Your task to perform on an android device: Open Chrome and go to the settings page Image 0: 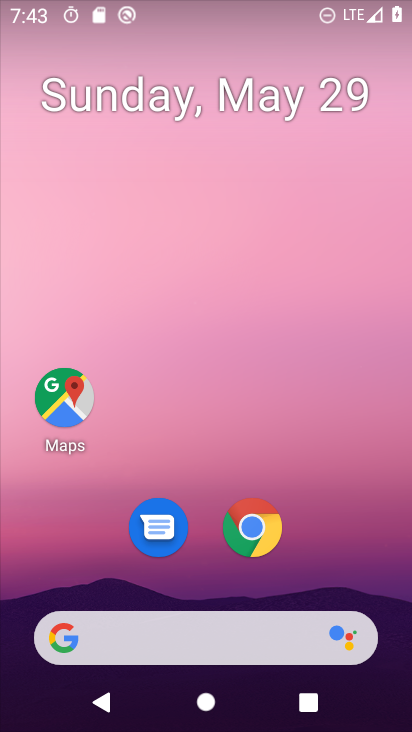
Step 0: drag from (377, 639) to (344, 6)
Your task to perform on an android device: Open Chrome and go to the settings page Image 1: 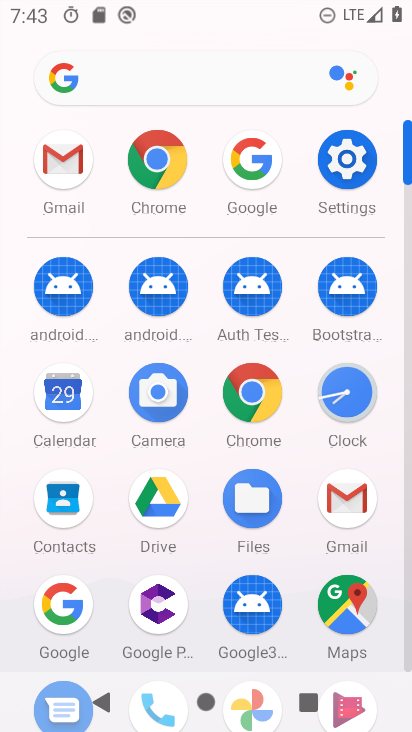
Step 1: click (147, 174)
Your task to perform on an android device: Open Chrome and go to the settings page Image 2: 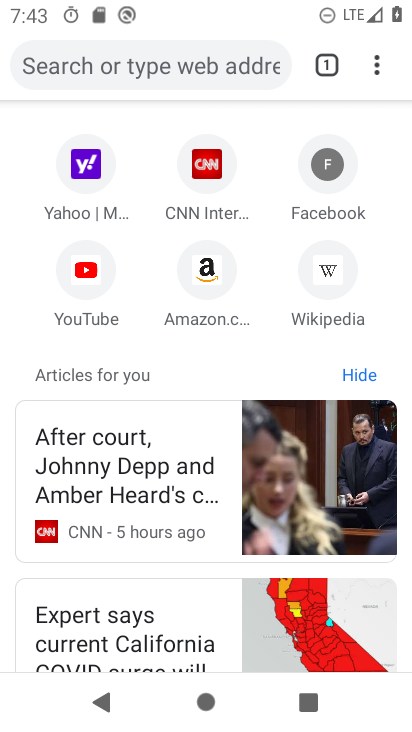
Step 2: click (374, 57)
Your task to perform on an android device: Open Chrome and go to the settings page Image 3: 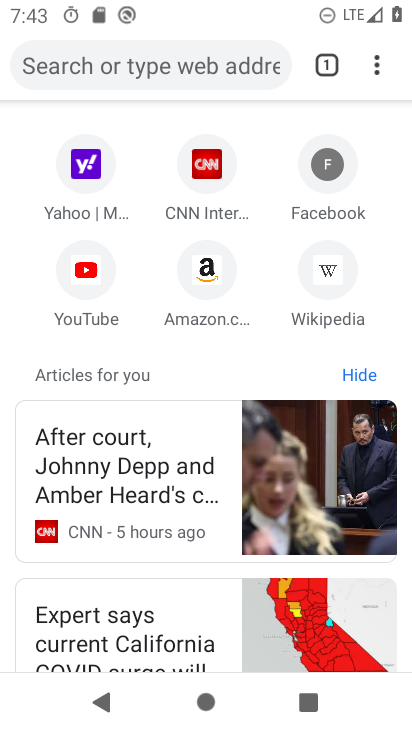
Step 3: click (388, 67)
Your task to perform on an android device: Open Chrome and go to the settings page Image 4: 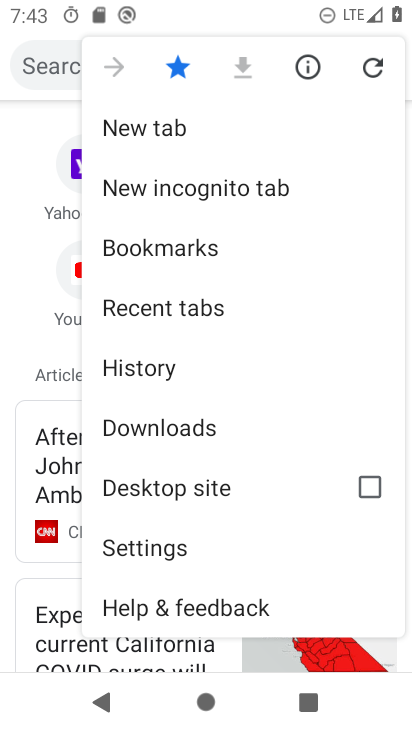
Step 4: click (188, 552)
Your task to perform on an android device: Open Chrome and go to the settings page Image 5: 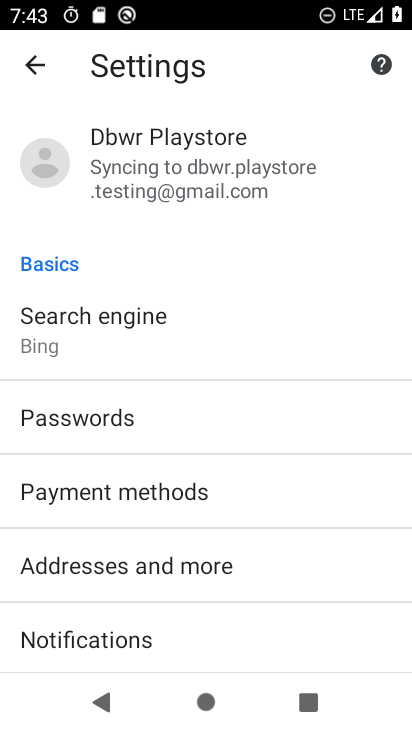
Step 5: task complete